Your task to perform on an android device: turn on sleep mode Image 0: 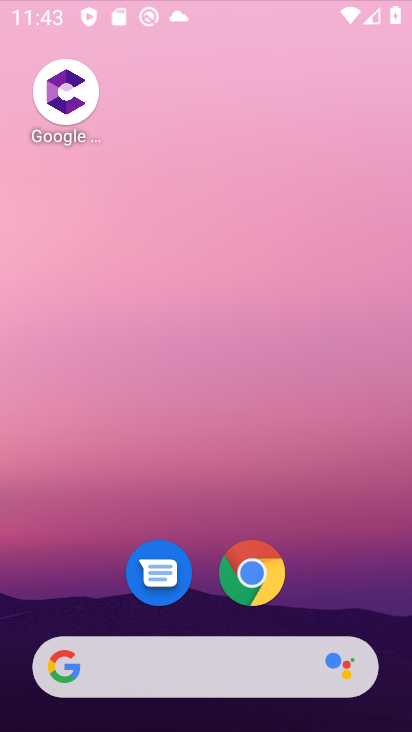
Step 0: drag from (365, 576) to (316, 125)
Your task to perform on an android device: turn on sleep mode Image 1: 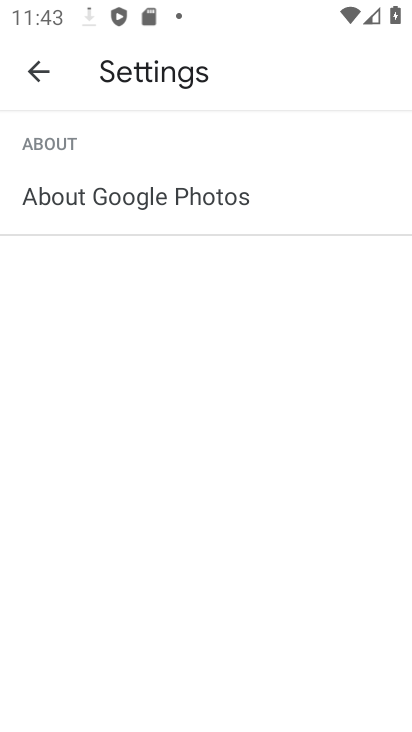
Step 1: click (19, 73)
Your task to perform on an android device: turn on sleep mode Image 2: 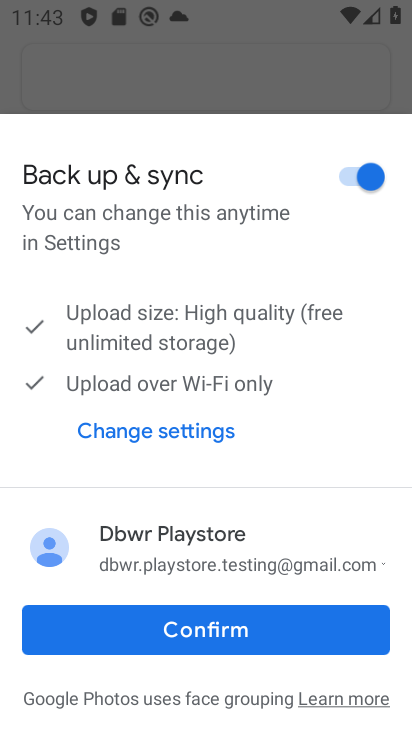
Step 2: press home button
Your task to perform on an android device: turn on sleep mode Image 3: 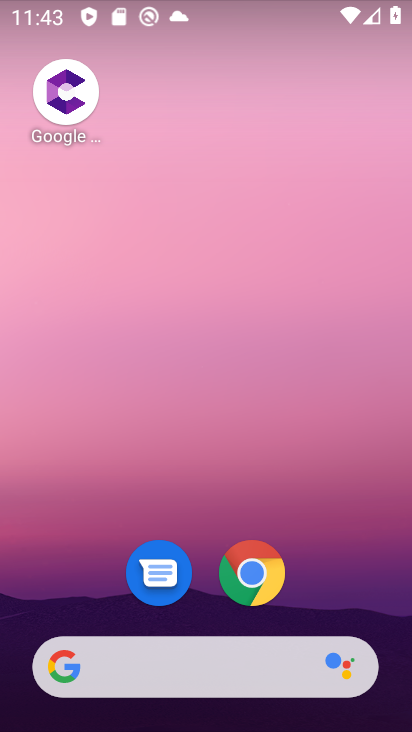
Step 3: drag from (373, 526) to (348, 161)
Your task to perform on an android device: turn on sleep mode Image 4: 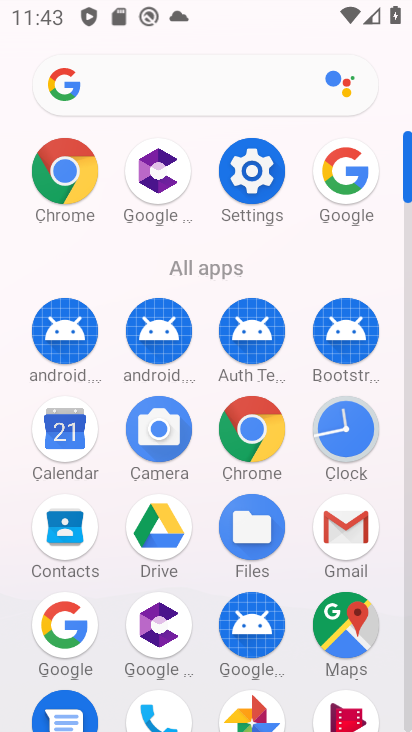
Step 4: click (263, 182)
Your task to perform on an android device: turn on sleep mode Image 5: 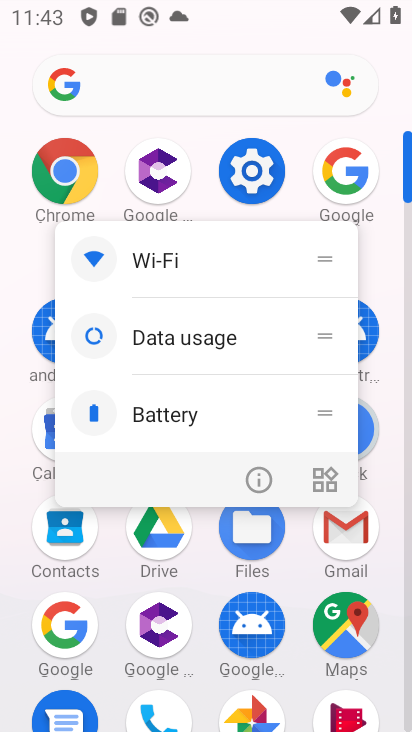
Step 5: click (263, 181)
Your task to perform on an android device: turn on sleep mode Image 6: 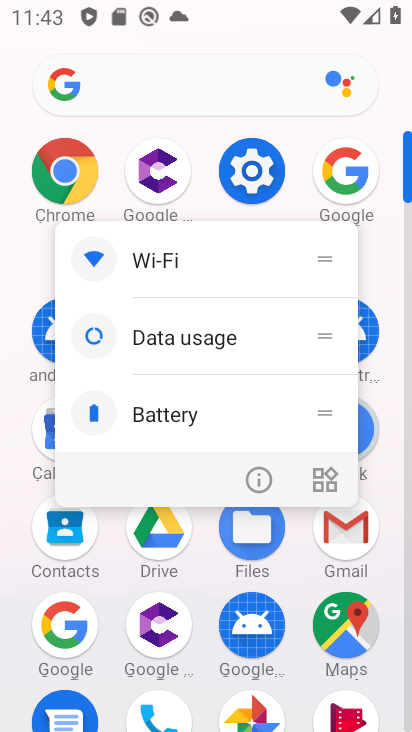
Step 6: click (263, 181)
Your task to perform on an android device: turn on sleep mode Image 7: 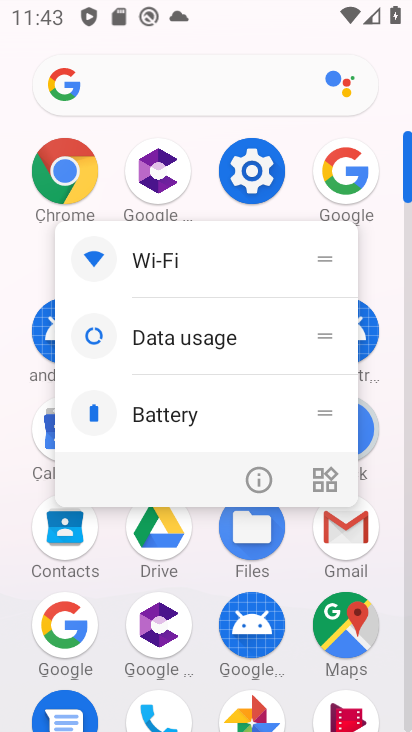
Step 7: click (262, 199)
Your task to perform on an android device: turn on sleep mode Image 8: 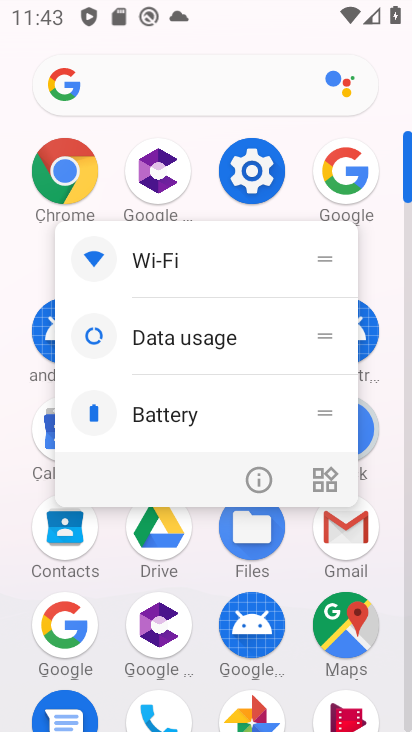
Step 8: click (255, 203)
Your task to perform on an android device: turn on sleep mode Image 9: 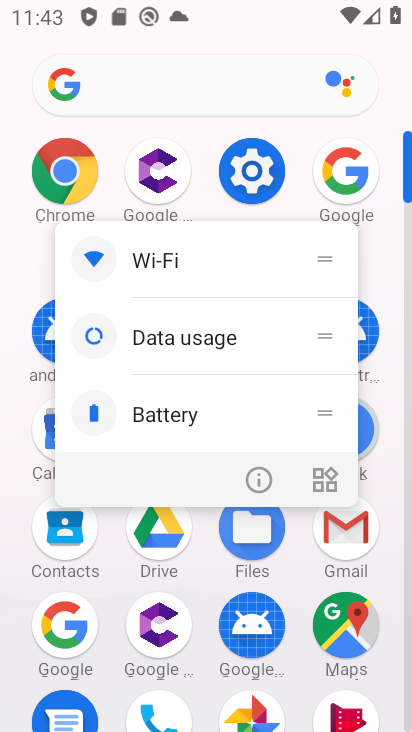
Step 9: click (258, 157)
Your task to perform on an android device: turn on sleep mode Image 10: 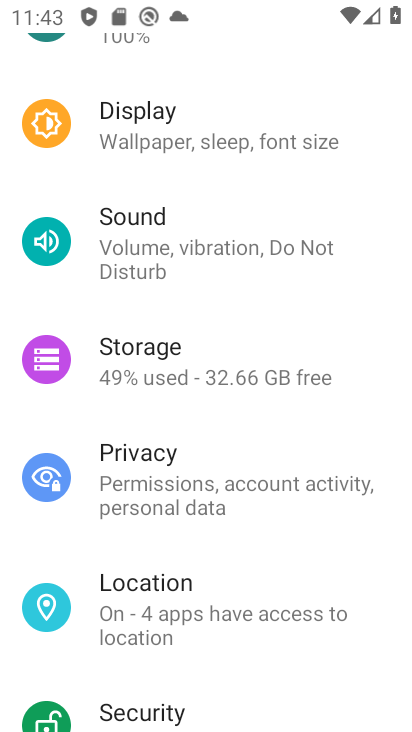
Step 10: drag from (260, 289) to (225, 557)
Your task to perform on an android device: turn on sleep mode Image 11: 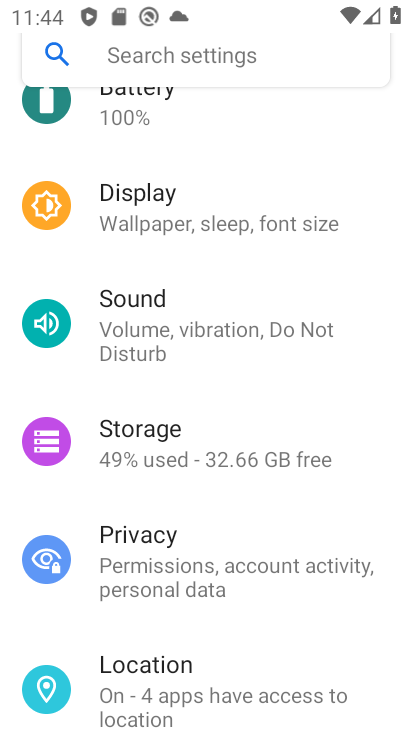
Step 11: click (199, 53)
Your task to perform on an android device: turn on sleep mode Image 12: 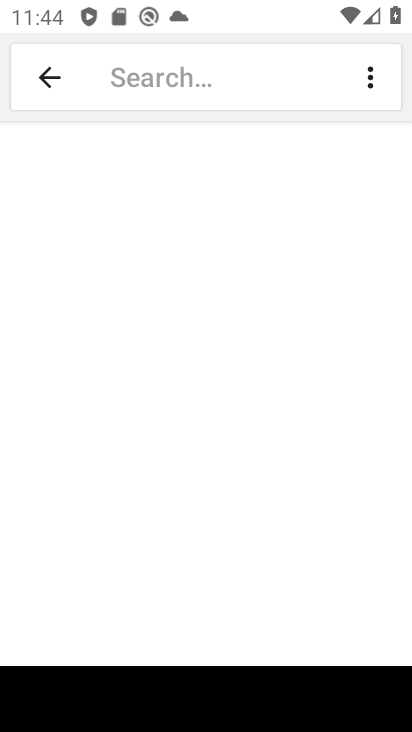
Step 12: type "sleep mode"
Your task to perform on an android device: turn on sleep mode Image 13: 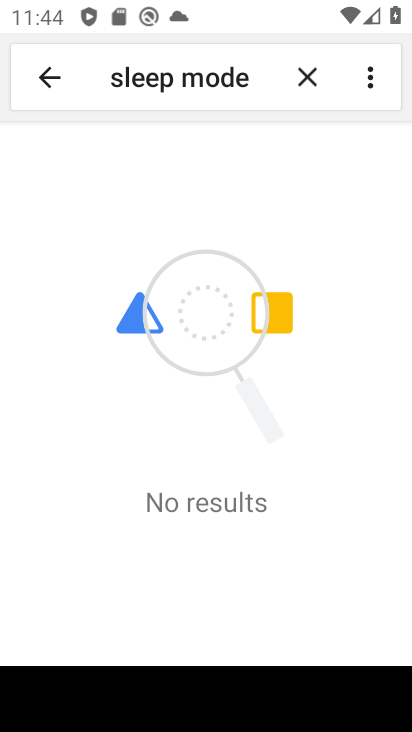
Step 13: task complete